Your task to perform on an android device: toggle translation in the chrome app Image 0: 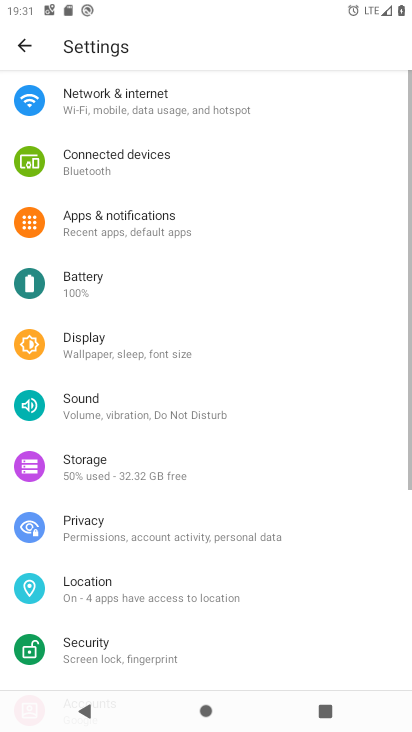
Step 0: press home button
Your task to perform on an android device: toggle translation in the chrome app Image 1: 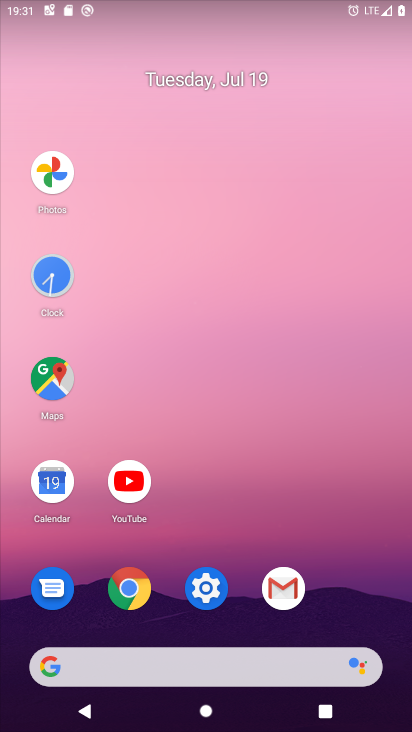
Step 1: click (134, 591)
Your task to perform on an android device: toggle translation in the chrome app Image 2: 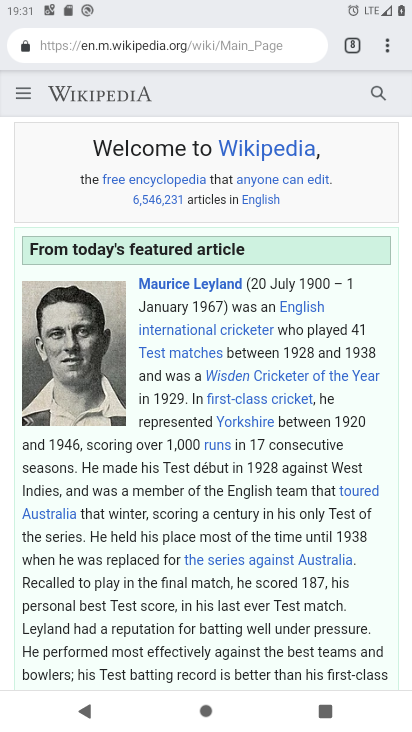
Step 2: click (388, 43)
Your task to perform on an android device: toggle translation in the chrome app Image 3: 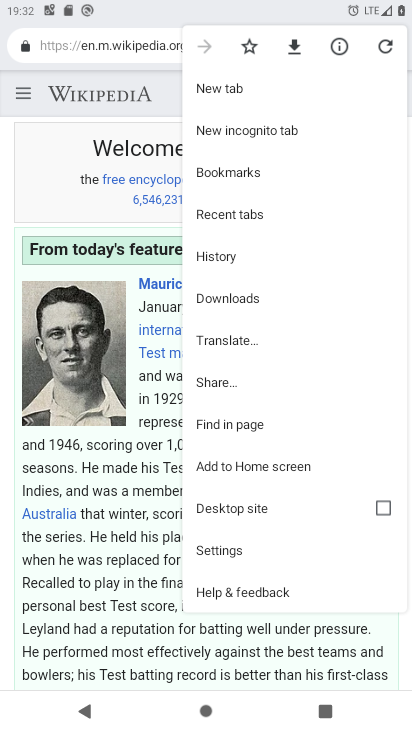
Step 3: click (230, 537)
Your task to perform on an android device: toggle translation in the chrome app Image 4: 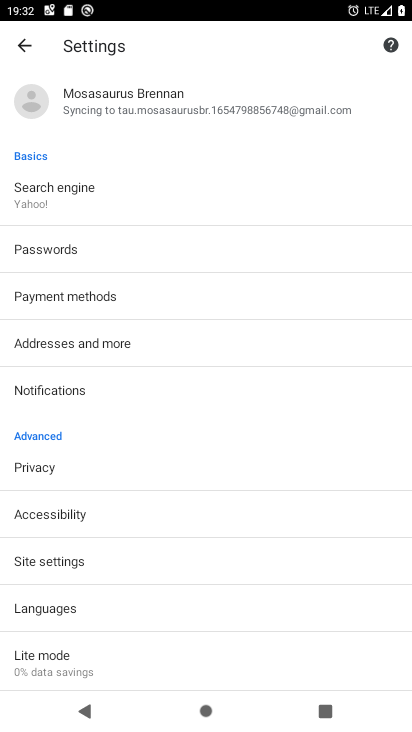
Step 4: click (70, 603)
Your task to perform on an android device: toggle translation in the chrome app Image 5: 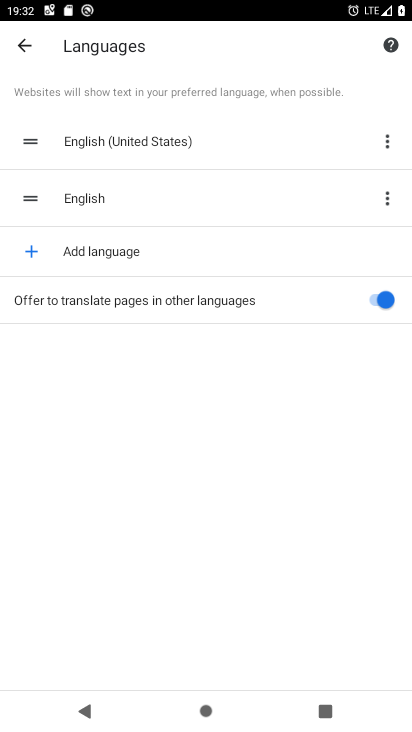
Step 5: click (378, 296)
Your task to perform on an android device: toggle translation in the chrome app Image 6: 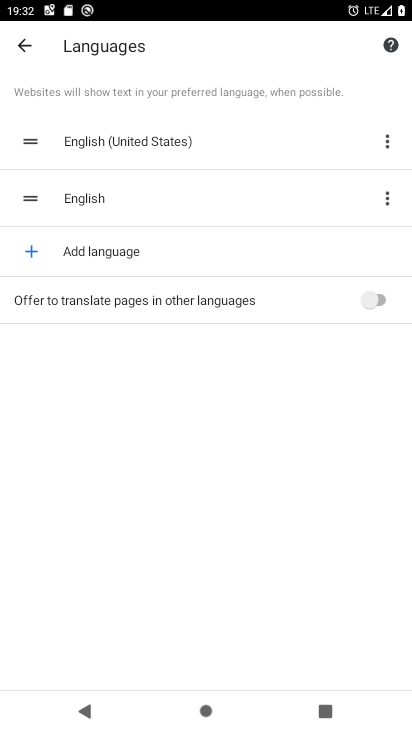
Step 6: task complete